Your task to perform on an android device: change the clock display to show seconds Image 0: 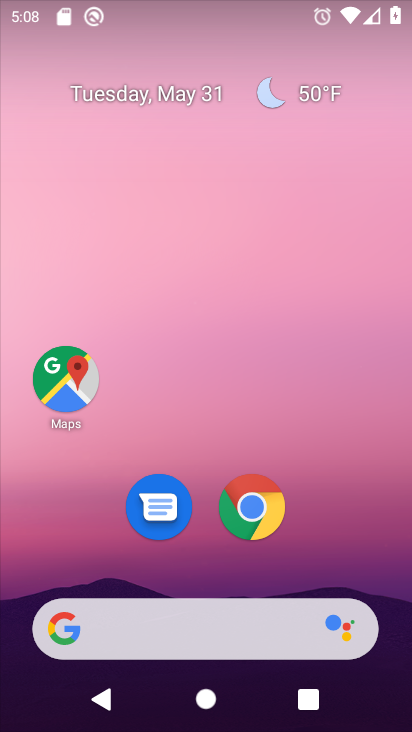
Step 0: drag from (331, 551) to (263, 66)
Your task to perform on an android device: change the clock display to show seconds Image 1: 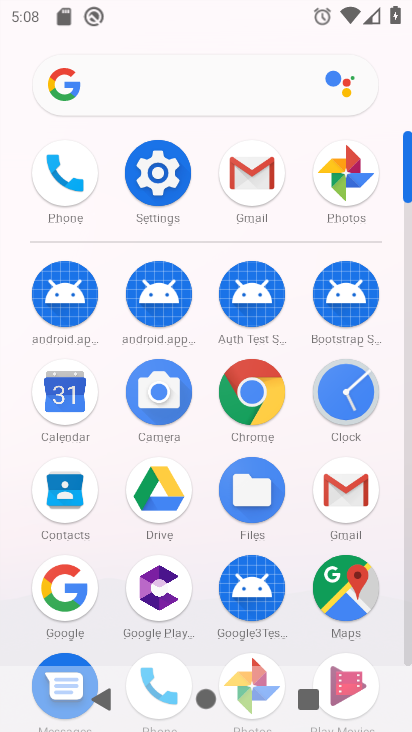
Step 1: click (345, 375)
Your task to perform on an android device: change the clock display to show seconds Image 2: 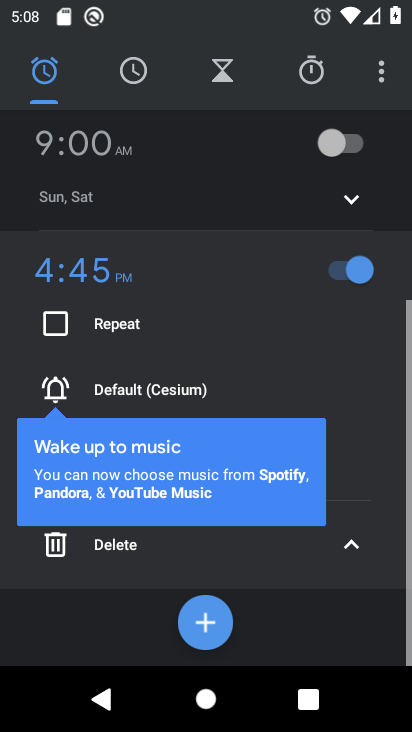
Step 2: click (375, 73)
Your task to perform on an android device: change the clock display to show seconds Image 3: 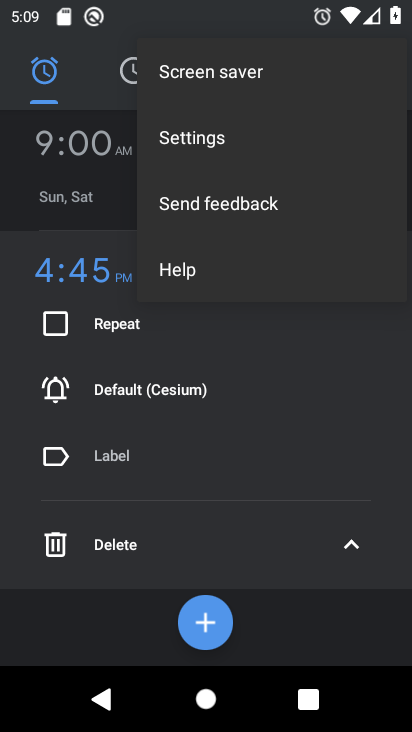
Step 3: click (306, 143)
Your task to perform on an android device: change the clock display to show seconds Image 4: 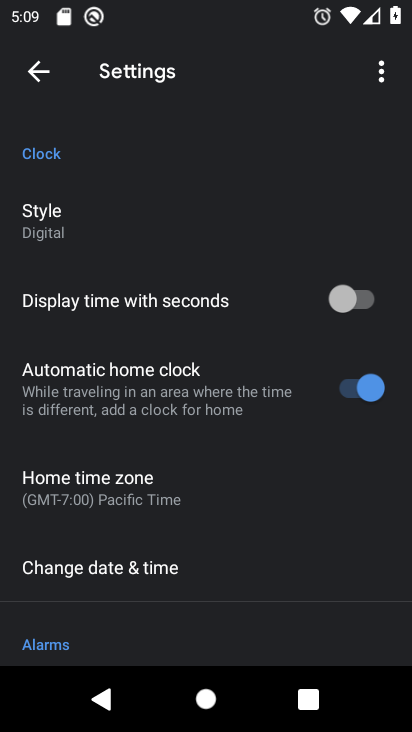
Step 4: click (362, 294)
Your task to perform on an android device: change the clock display to show seconds Image 5: 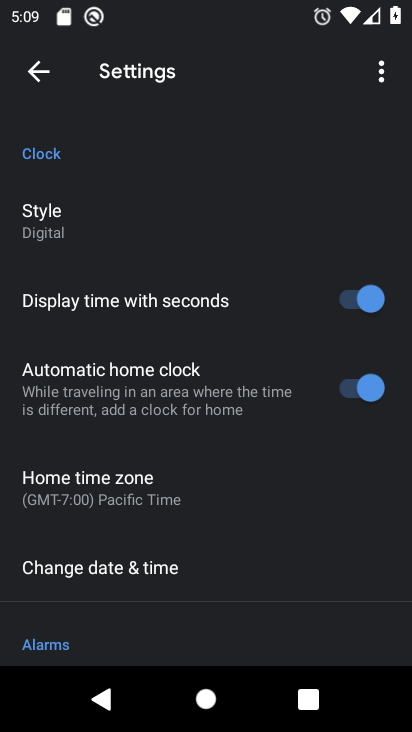
Step 5: task complete